Your task to perform on an android device: open app "VLC for Android" Image 0: 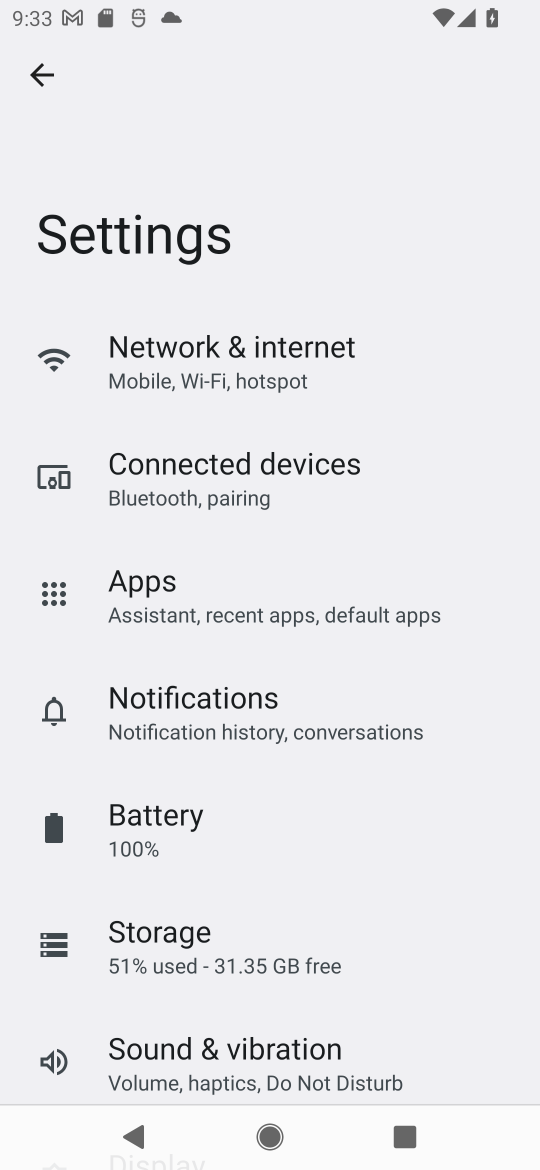
Step 0: press home button
Your task to perform on an android device: open app "VLC for Android" Image 1: 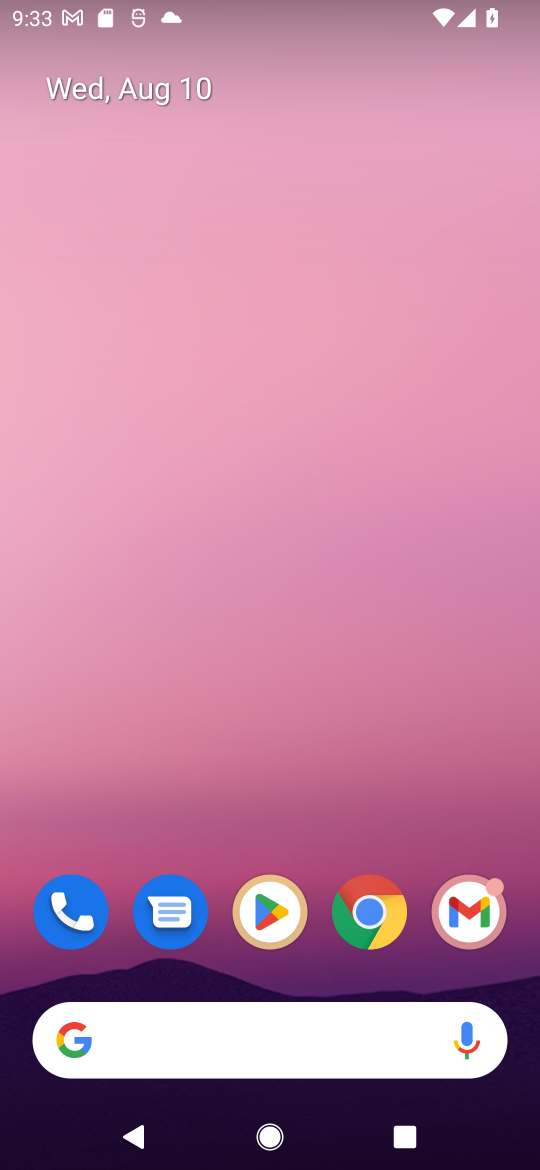
Step 1: drag from (421, 970) to (280, 72)
Your task to perform on an android device: open app "VLC for Android" Image 2: 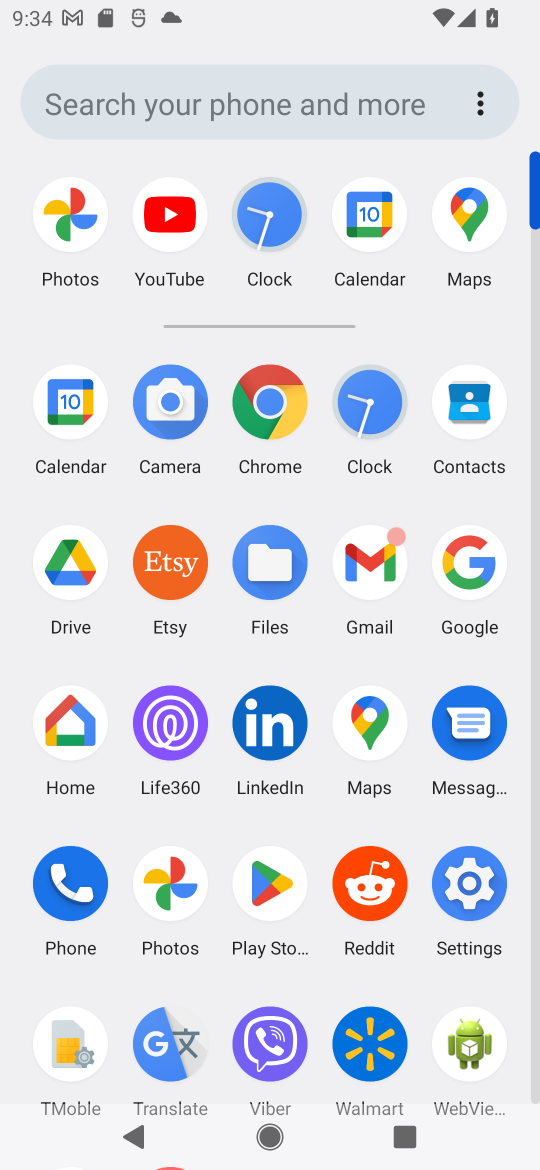
Step 2: click (240, 884)
Your task to perform on an android device: open app "VLC for Android" Image 3: 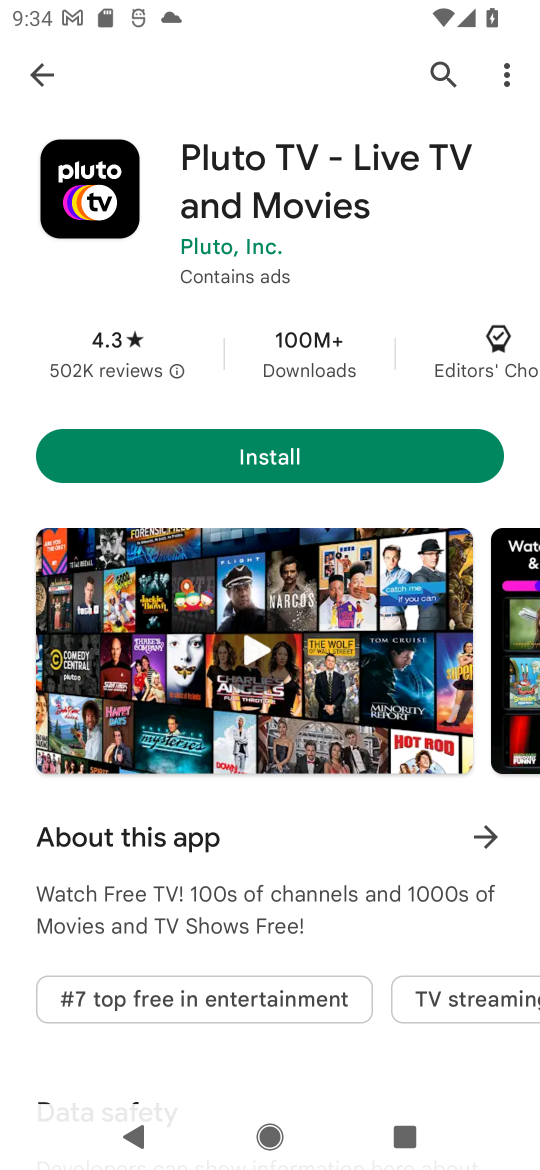
Step 3: press back button
Your task to perform on an android device: open app "VLC for Android" Image 4: 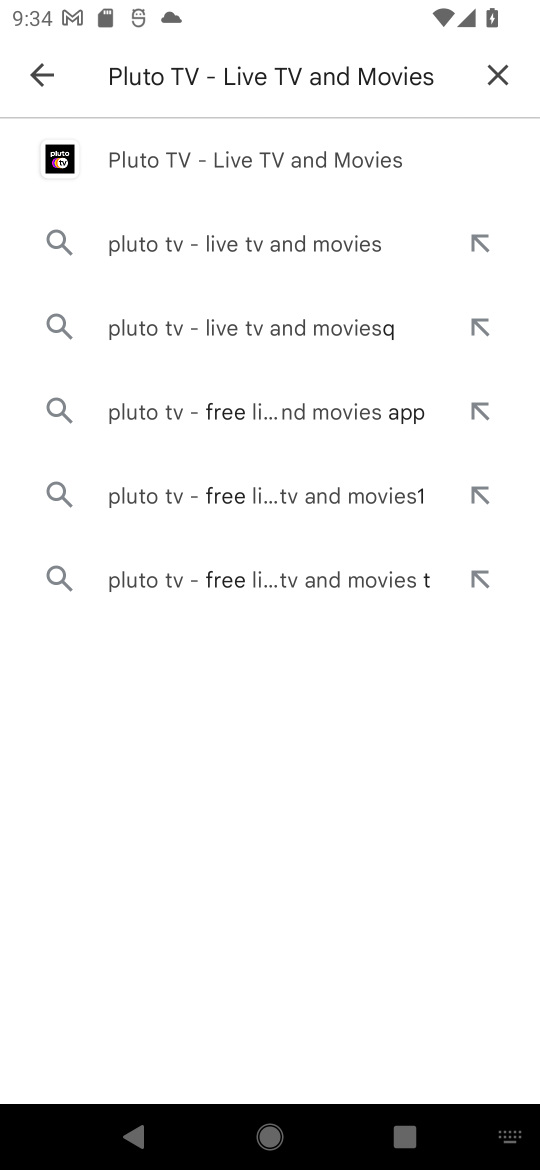
Step 4: click (498, 79)
Your task to perform on an android device: open app "VLC for Android" Image 5: 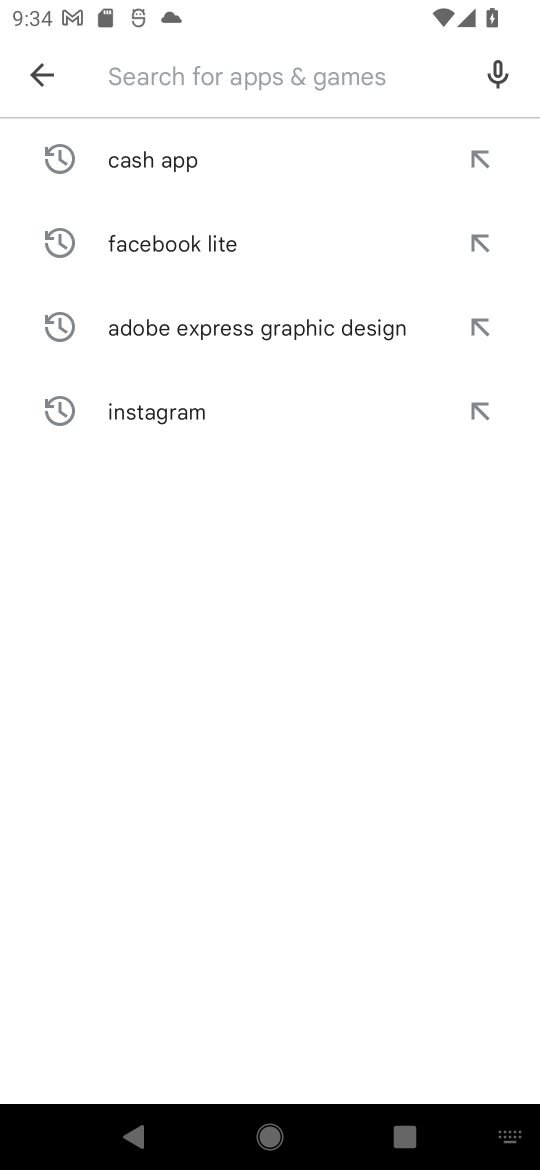
Step 5: type "VLC for Android"
Your task to perform on an android device: open app "VLC for Android" Image 6: 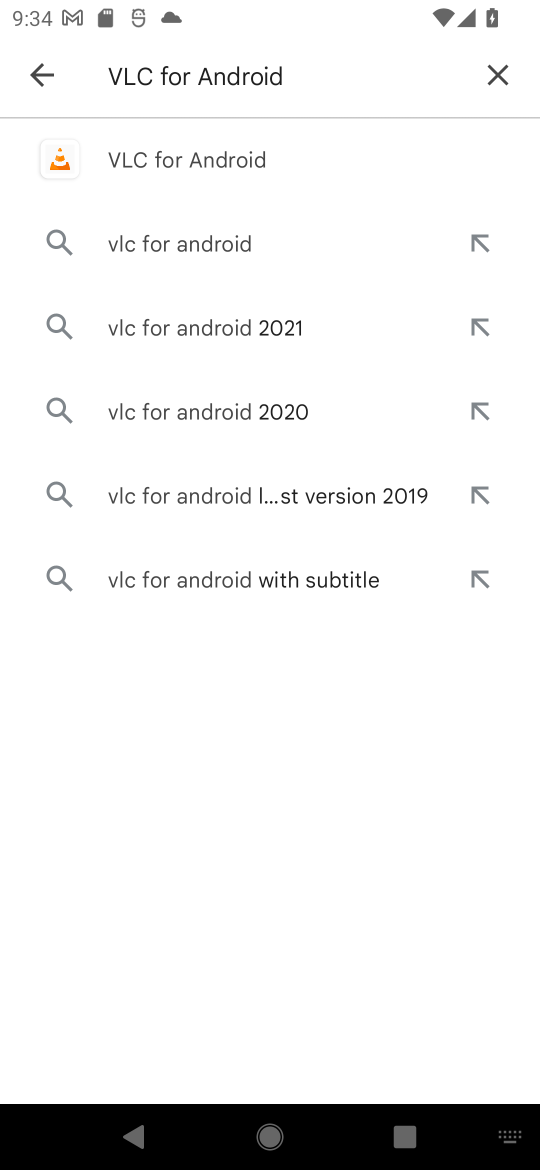
Step 6: click (210, 152)
Your task to perform on an android device: open app "VLC for Android" Image 7: 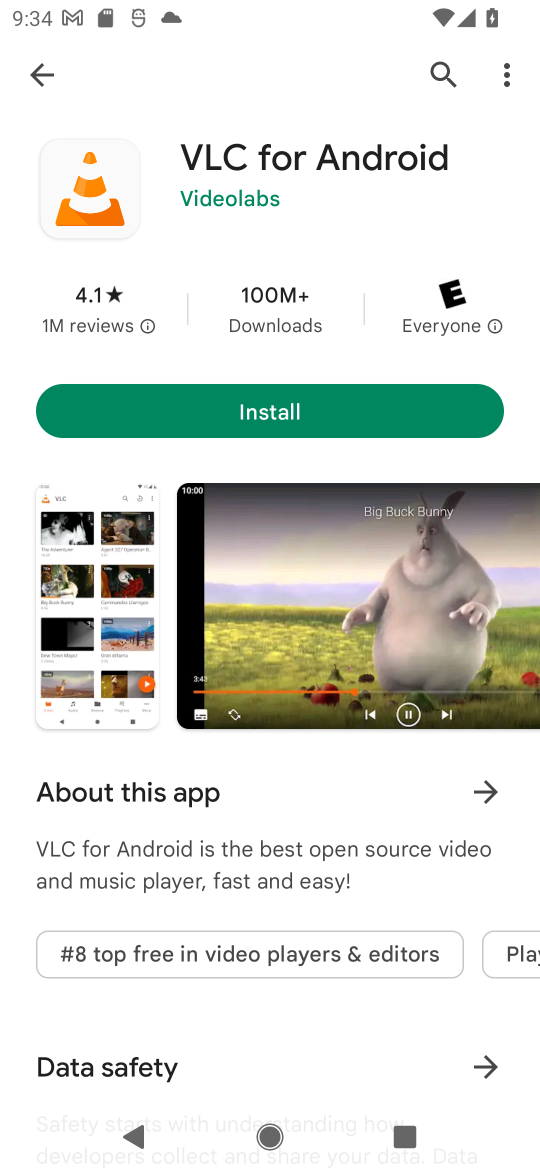
Step 7: task complete